Your task to perform on an android device: Search for vegetarian restaurants on Maps Image 0: 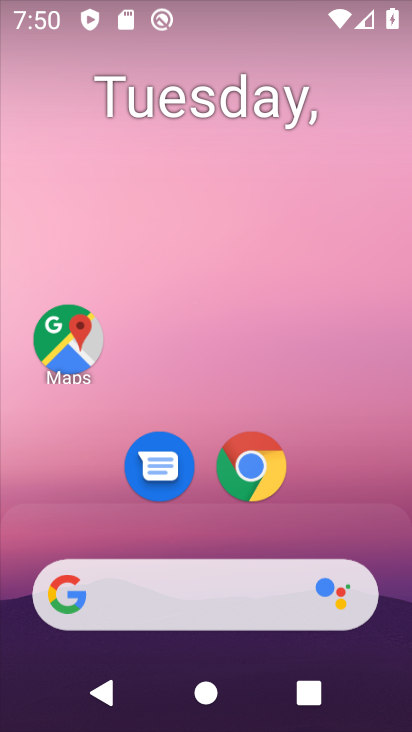
Step 0: press home button
Your task to perform on an android device: Search for vegetarian restaurants on Maps Image 1: 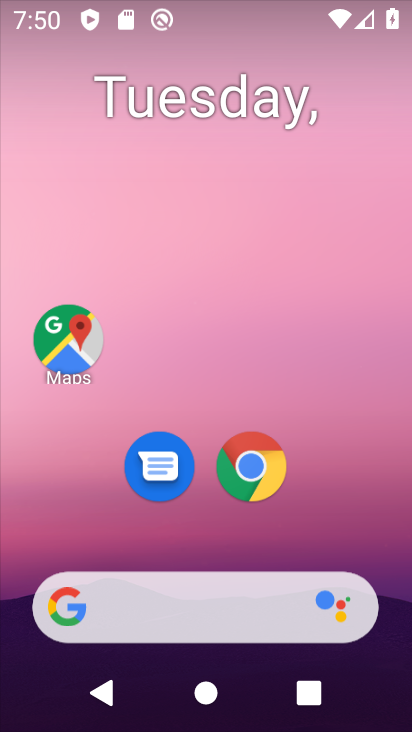
Step 1: drag from (278, 638) to (320, 136)
Your task to perform on an android device: Search for vegetarian restaurants on Maps Image 2: 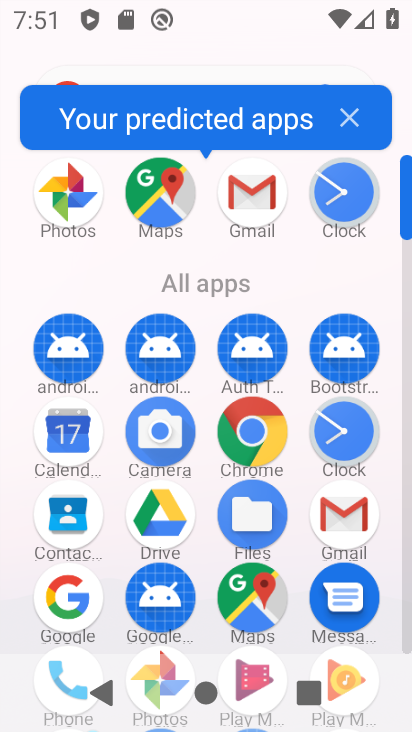
Step 2: click (169, 206)
Your task to perform on an android device: Search for vegetarian restaurants on Maps Image 3: 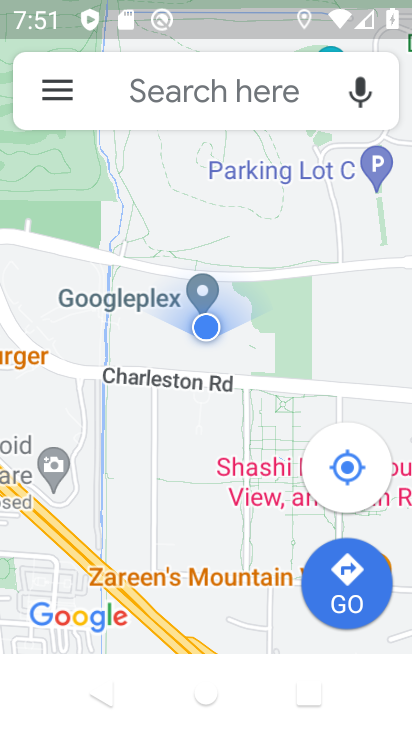
Step 3: click (157, 96)
Your task to perform on an android device: Search for vegetarian restaurants on Maps Image 4: 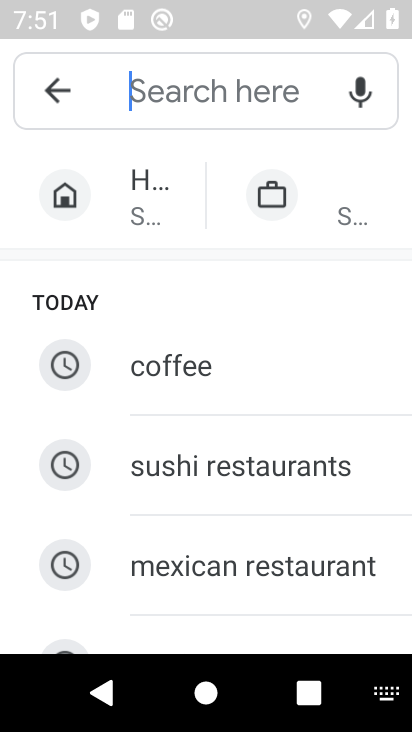
Step 4: click (383, 691)
Your task to perform on an android device: Search for vegetarian restaurants on Maps Image 5: 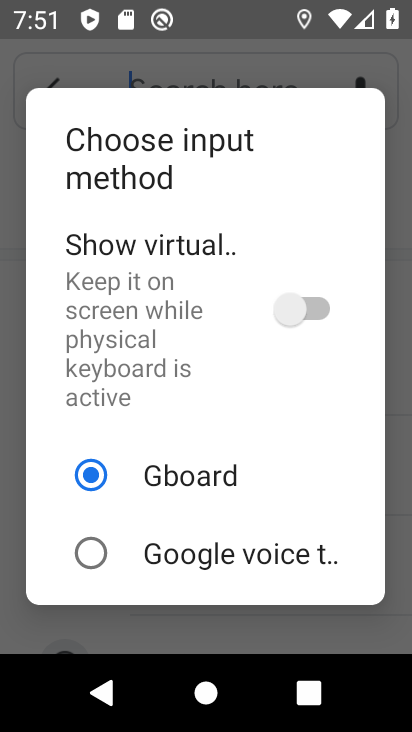
Step 5: click (323, 305)
Your task to perform on an android device: Search for vegetarian restaurants on Maps Image 6: 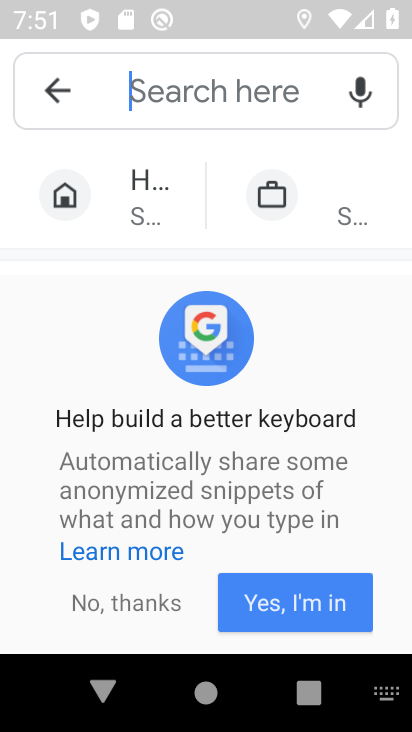
Step 6: click (144, 604)
Your task to perform on an android device: Search for vegetarian restaurants on Maps Image 7: 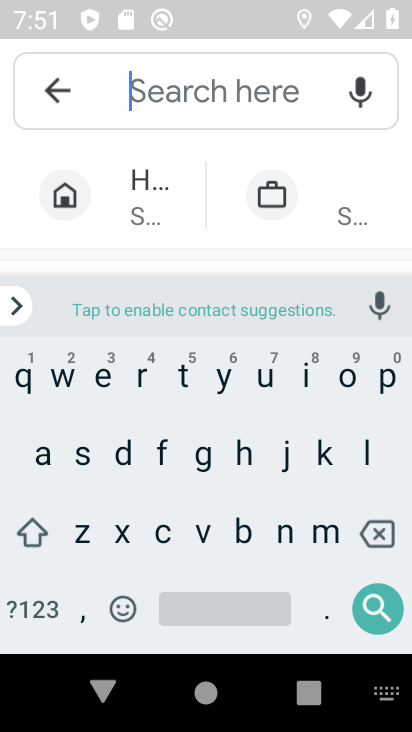
Step 7: click (202, 532)
Your task to perform on an android device: Search for vegetarian restaurants on Maps Image 8: 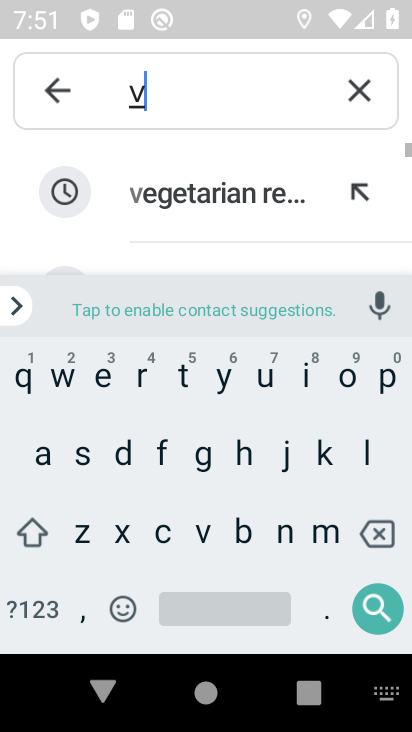
Step 8: click (213, 199)
Your task to perform on an android device: Search for vegetarian restaurants on Maps Image 9: 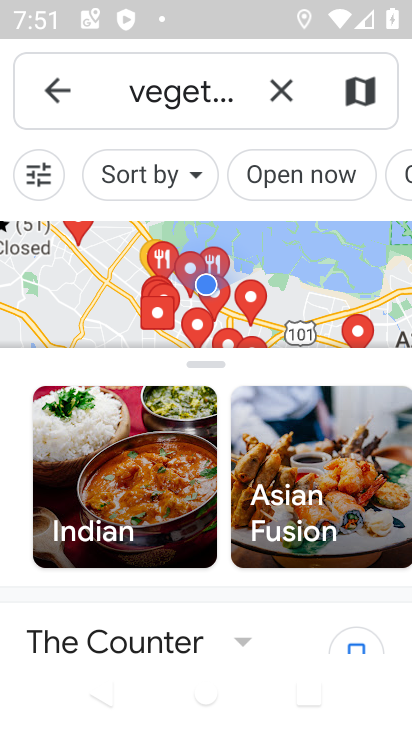
Step 9: click (116, 258)
Your task to perform on an android device: Search for vegetarian restaurants on Maps Image 10: 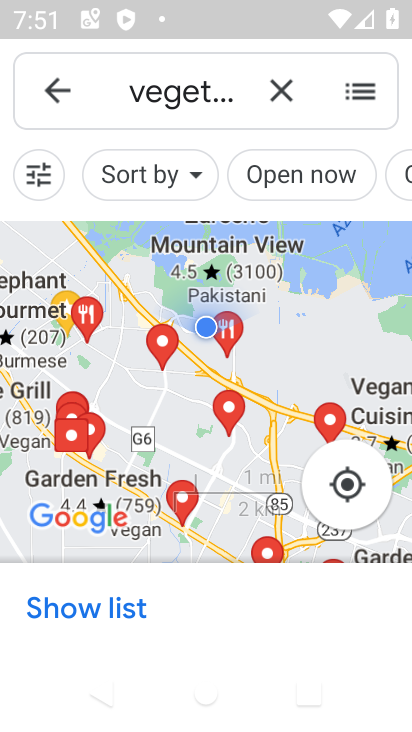
Step 10: task complete